Your task to perform on an android device: set an alarm Image 0: 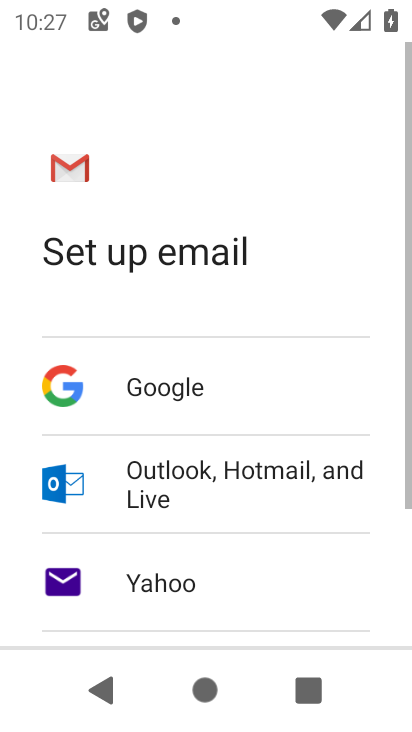
Step 0: press home button
Your task to perform on an android device: set an alarm Image 1: 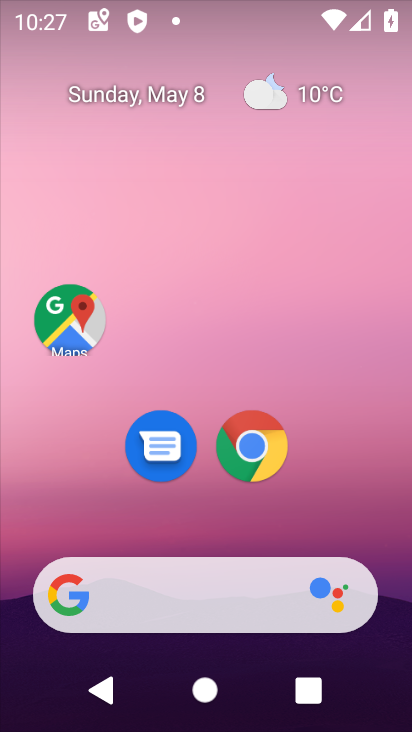
Step 1: drag from (386, 548) to (336, 6)
Your task to perform on an android device: set an alarm Image 2: 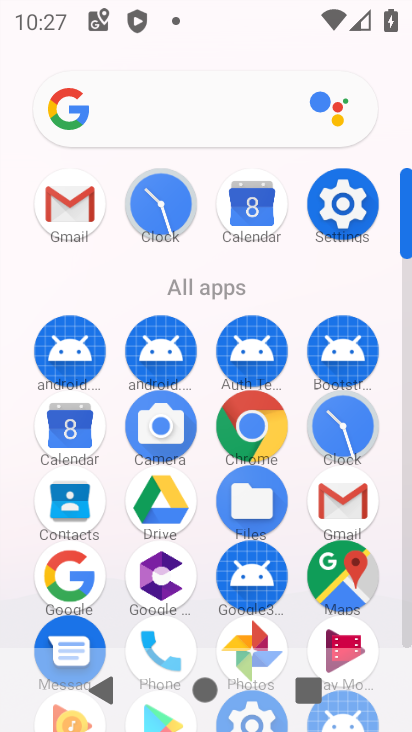
Step 2: click (160, 214)
Your task to perform on an android device: set an alarm Image 3: 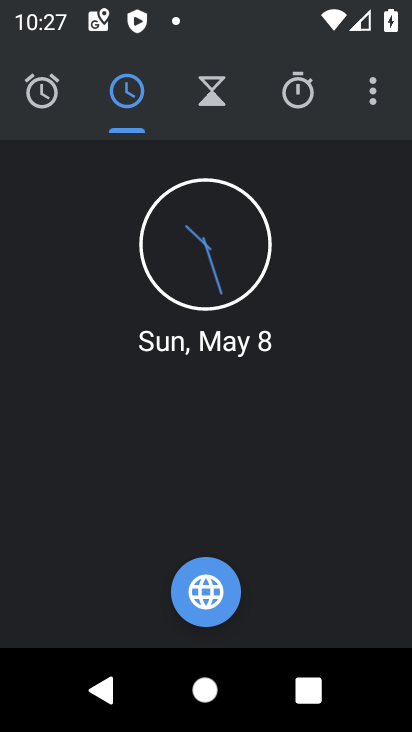
Step 3: click (31, 103)
Your task to perform on an android device: set an alarm Image 4: 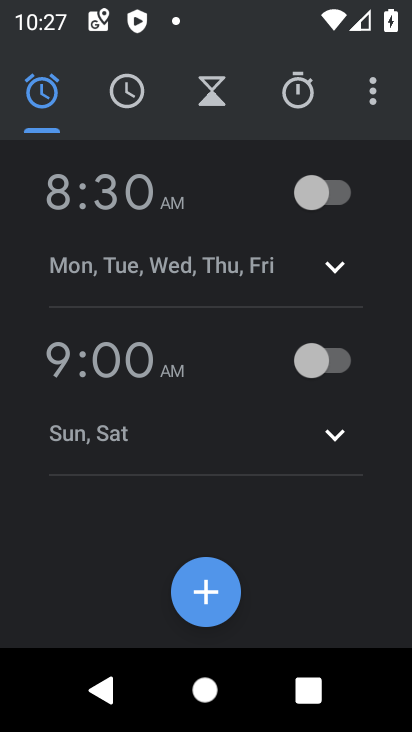
Step 4: click (199, 593)
Your task to perform on an android device: set an alarm Image 5: 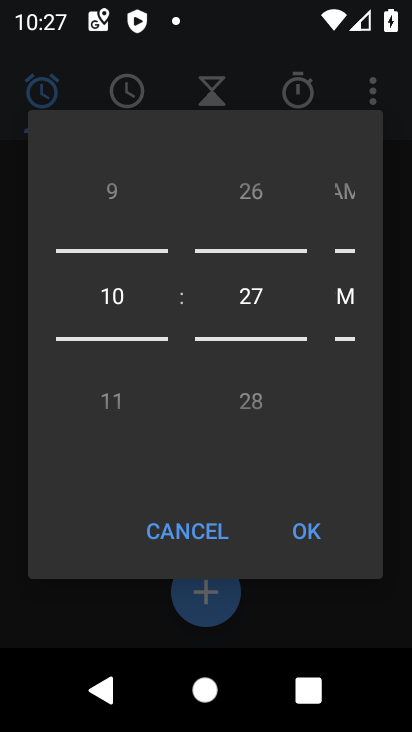
Step 5: drag from (122, 263) to (118, 603)
Your task to perform on an android device: set an alarm Image 6: 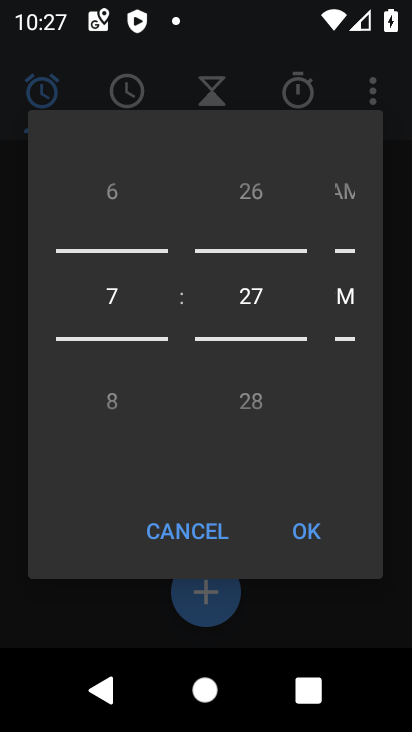
Step 6: drag from (106, 272) to (115, 481)
Your task to perform on an android device: set an alarm Image 7: 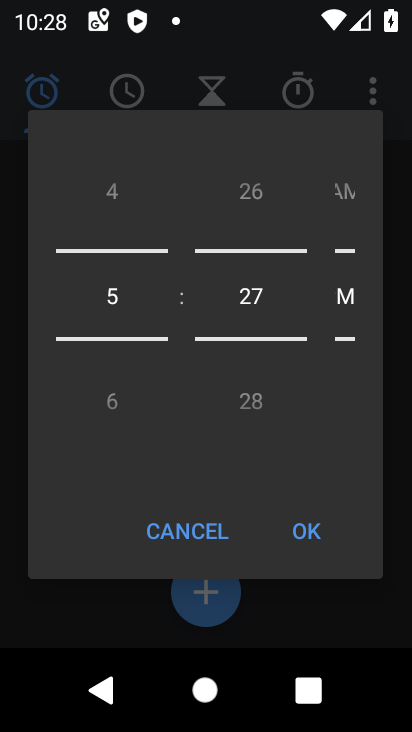
Step 7: drag from (261, 300) to (284, 503)
Your task to perform on an android device: set an alarm Image 8: 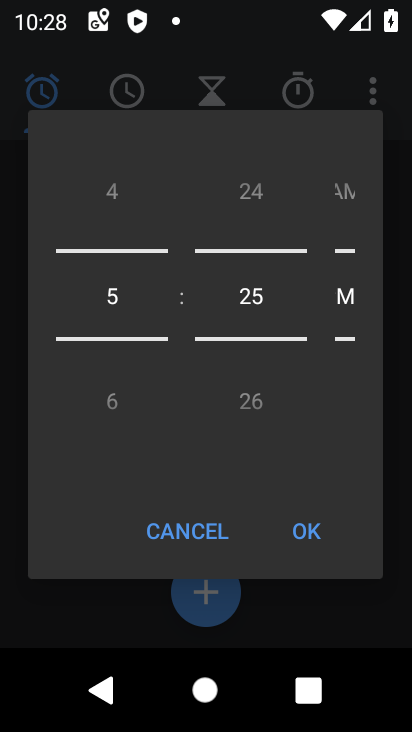
Step 8: drag from (259, 293) to (271, 493)
Your task to perform on an android device: set an alarm Image 9: 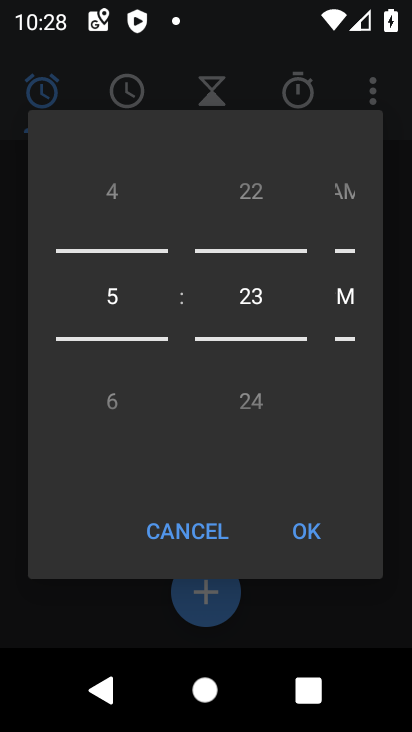
Step 9: drag from (259, 304) to (274, 434)
Your task to perform on an android device: set an alarm Image 10: 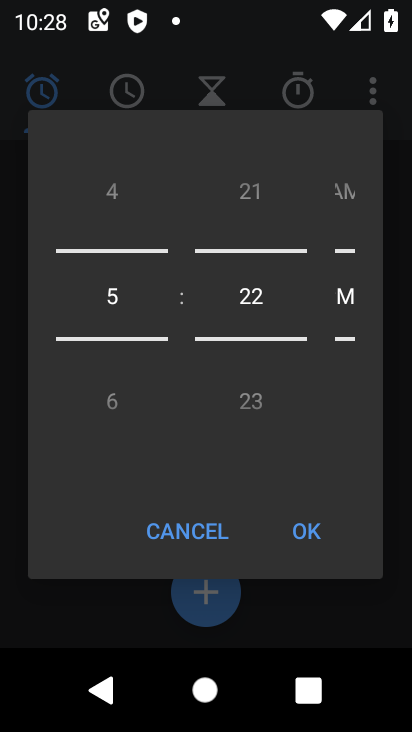
Step 10: drag from (244, 293) to (262, 450)
Your task to perform on an android device: set an alarm Image 11: 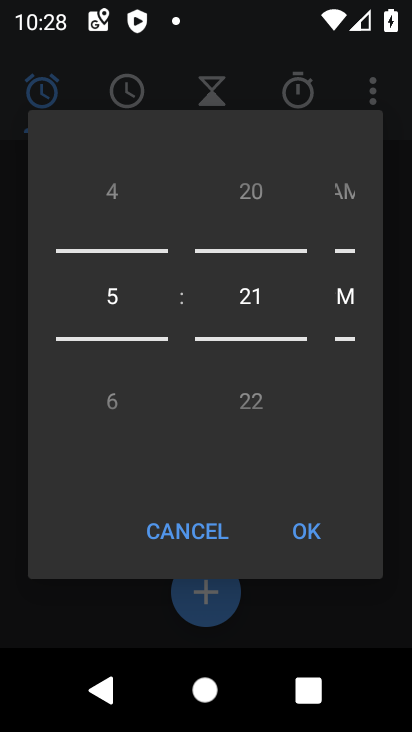
Step 11: drag from (240, 292) to (256, 452)
Your task to perform on an android device: set an alarm Image 12: 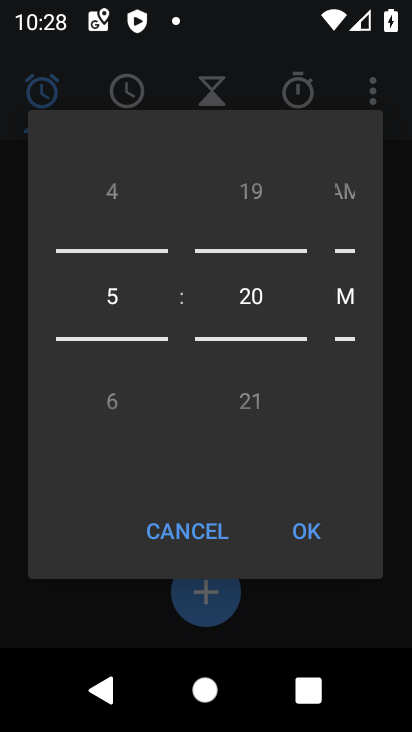
Step 12: drag from (249, 288) to (257, 498)
Your task to perform on an android device: set an alarm Image 13: 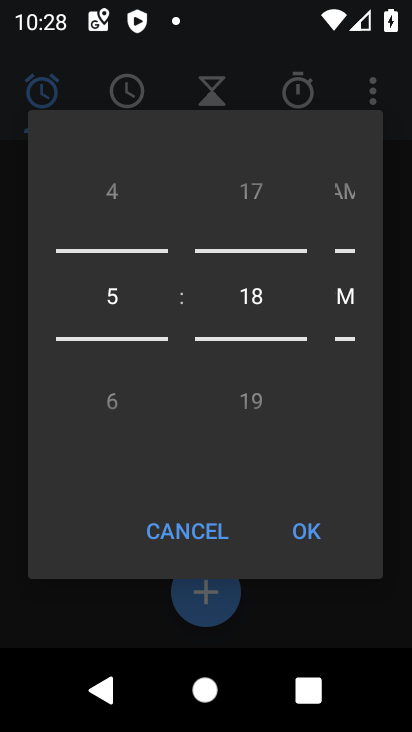
Step 13: drag from (238, 275) to (247, 497)
Your task to perform on an android device: set an alarm Image 14: 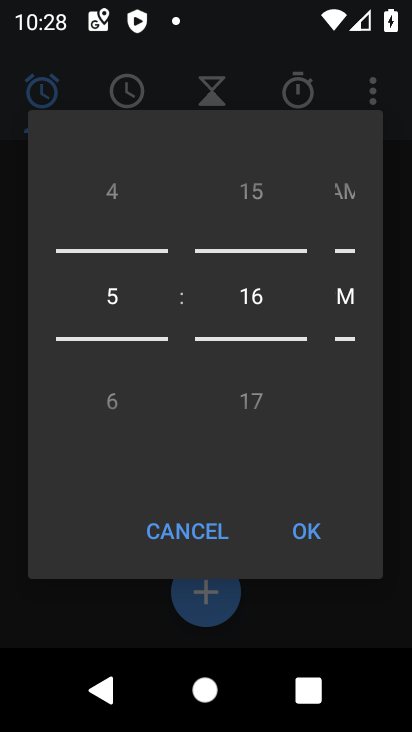
Step 14: drag from (264, 282) to (276, 425)
Your task to perform on an android device: set an alarm Image 15: 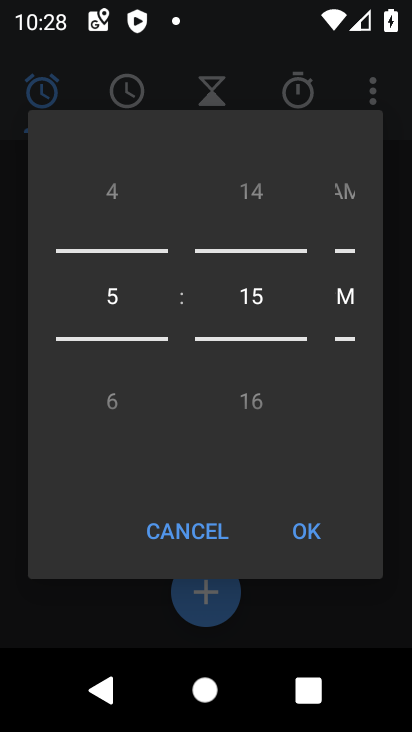
Step 15: click (347, 195)
Your task to perform on an android device: set an alarm Image 16: 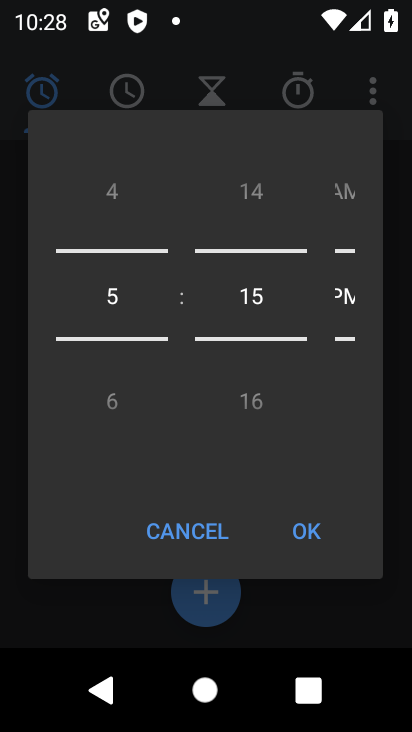
Step 16: drag from (347, 194) to (357, 302)
Your task to perform on an android device: set an alarm Image 17: 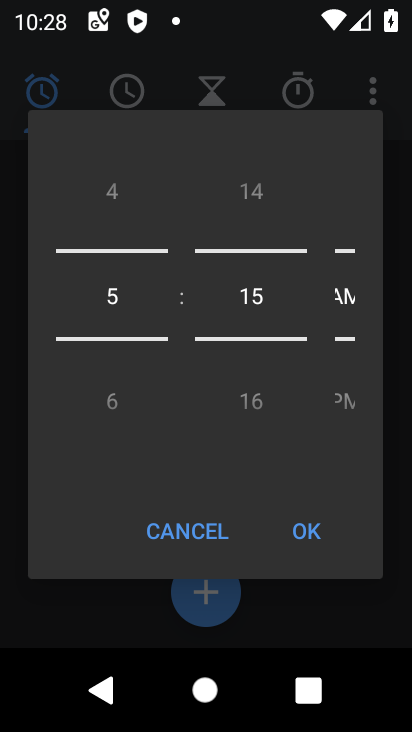
Step 17: click (308, 531)
Your task to perform on an android device: set an alarm Image 18: 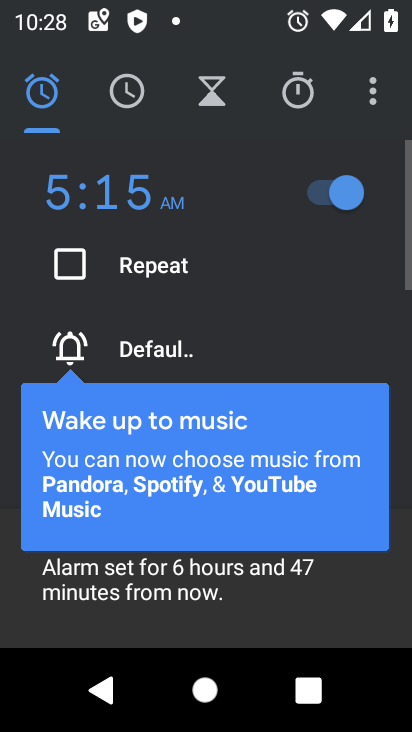
Step 18: task complete